Your task to perform on an android device: Open the Play Movies app and select the watchlist tab. Image 0: 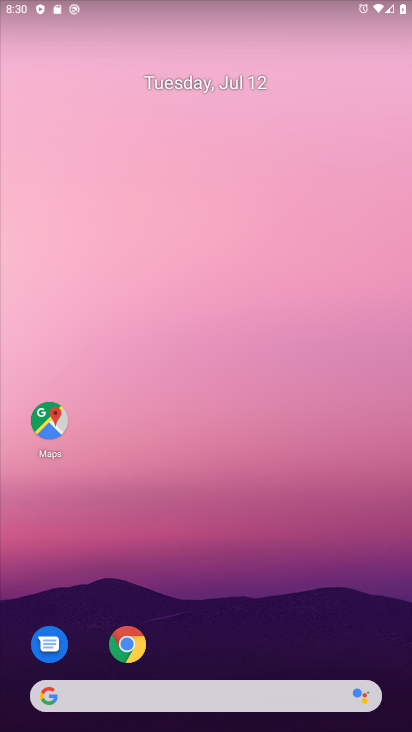
Step 0: drag from (149, 506) to (406, 22)
Your task to perform on an android device: Open the Play Movies app and select the watchlist tab. Image 1: 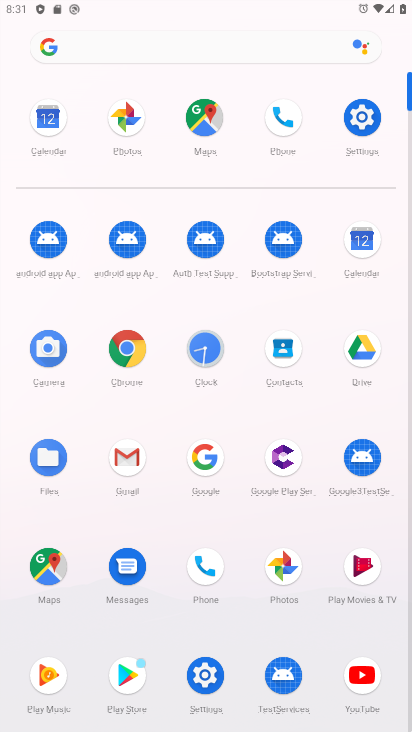
Step 1: click (373, 561)
Your task to perform on an android device: Open the Play Movies app and select the watchlist tab. Image 2: 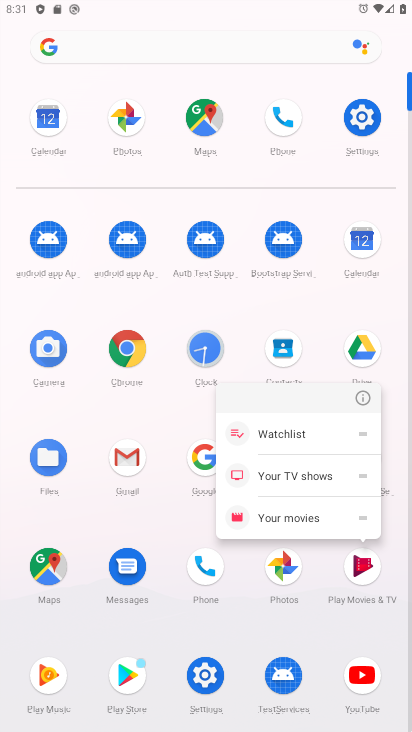
Step 2: click (361, 581)
Your task to perform on an android device: Open the Play Movies app and select the watchlist tab. Image 3: 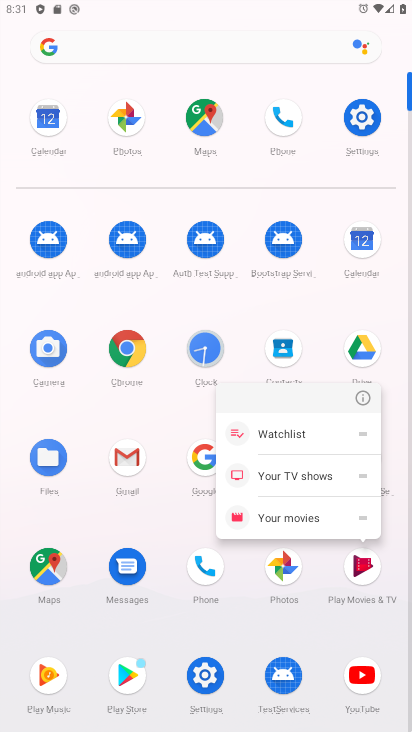
Step 3: click (348, 564)
Your task to perform on an android device: Open the Play Movies app and select the watchlist tab. Image 4: 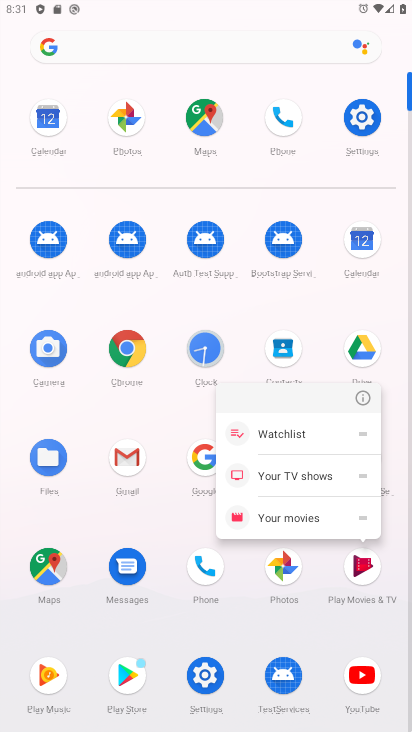
Step 4: task complete